Your task to perform on an android device: Open Android settings Image 0: 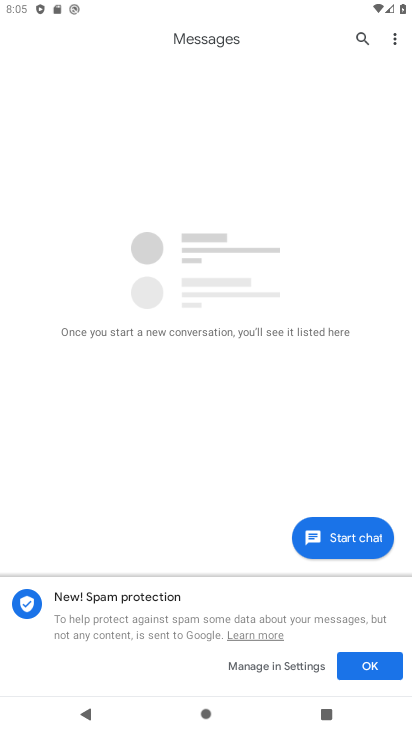
Step 0: press home button
Your task to perform on an android device: Open Android settings Image 1: 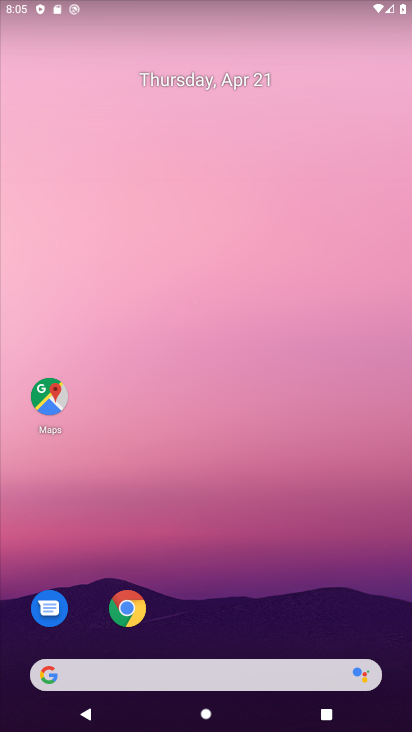
Step 1: drag from (332, 625) to (329, 162)
Your task to perform on an android device: Open Android settings Image 2: 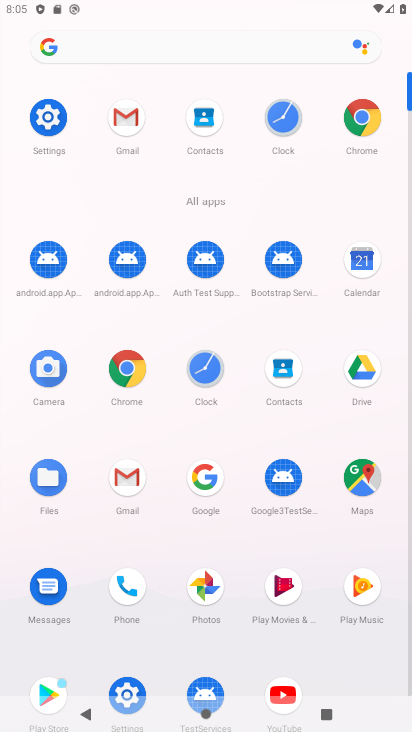
Step 2: click (34, 123)
Your task to perform on an android device: Open Android settings Image 3: 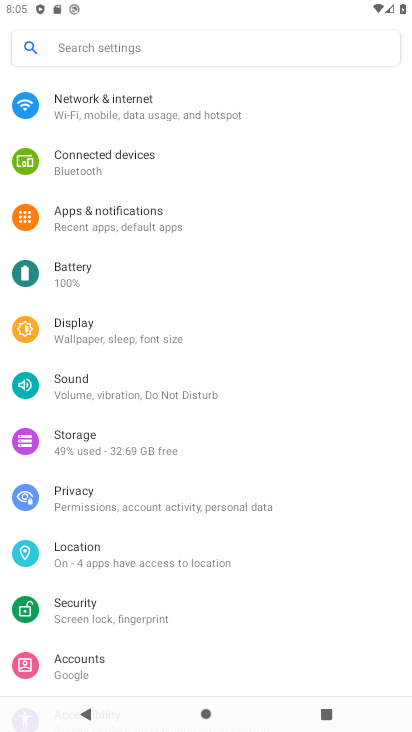
Step 3: click (147, 41)
Your task to perform on an android device: Open Android settings Image 4: 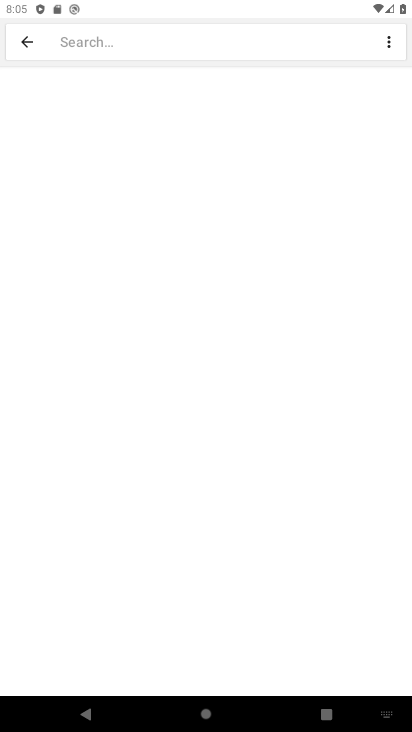
Step 4: type "android"
Your task to perform on an android device: Open Android settings Image 5: 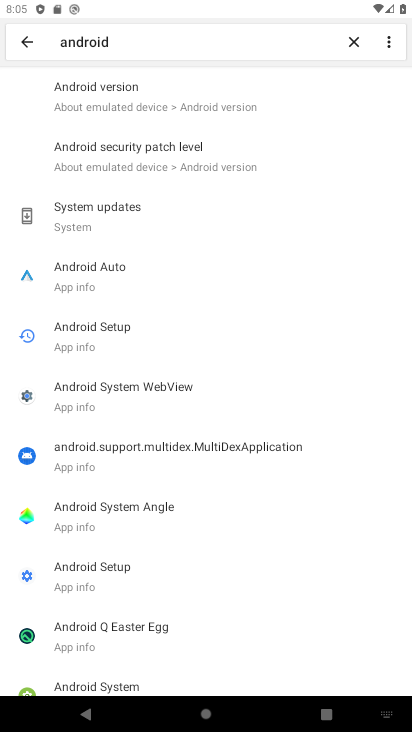
Step 5: click (129, 590)
Your task to perform on an android device: Open Android settings Image 6: 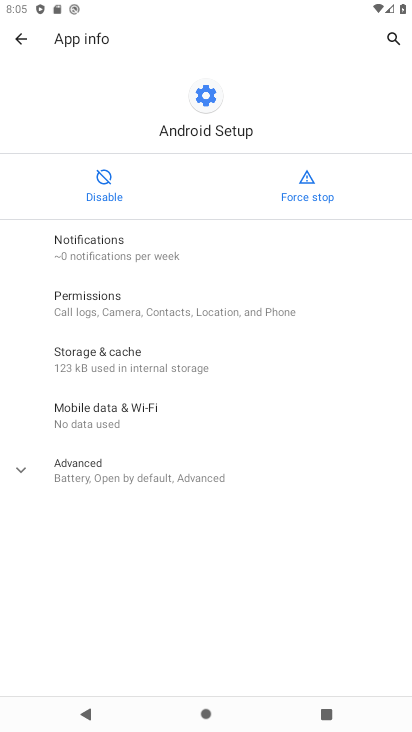
Step 6: task complete